Your task to perform on an android device: Go to Wikipedia Image 0: 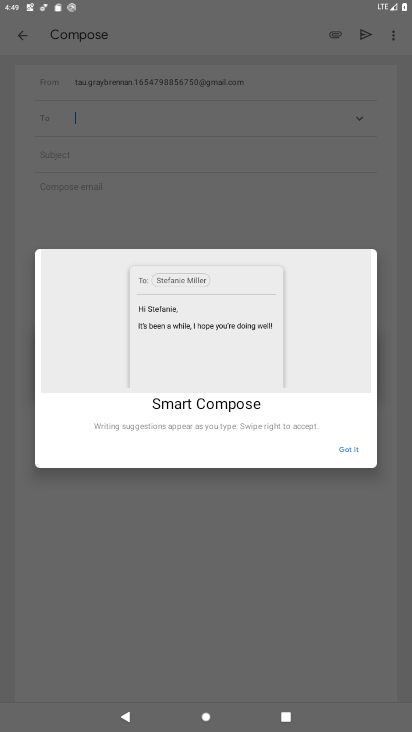
Step 0: press home button
Your task to perform on an android device: Go to Wikipedia Image 1: 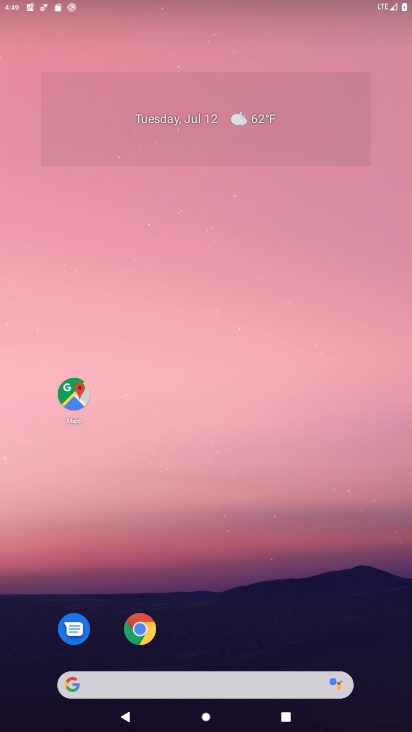
Step 1: drag from (353, 508) to (380, 98)
Your task to perform on an android device: Go to Wikipedia Image 2: 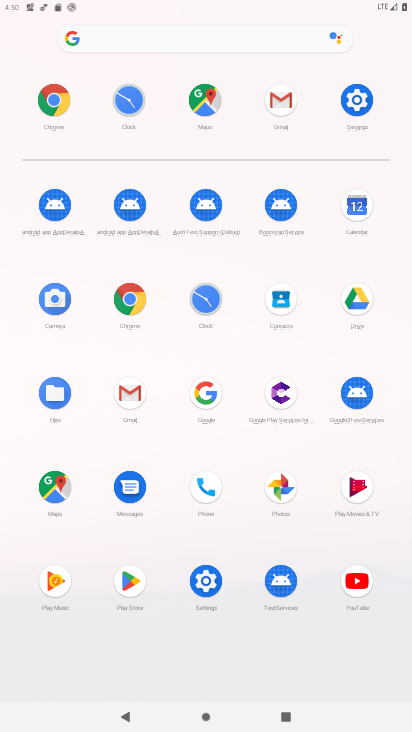
Step 2: click (57, 109)
Your task to perform on an android device: Go to Wikipedia Image 3: 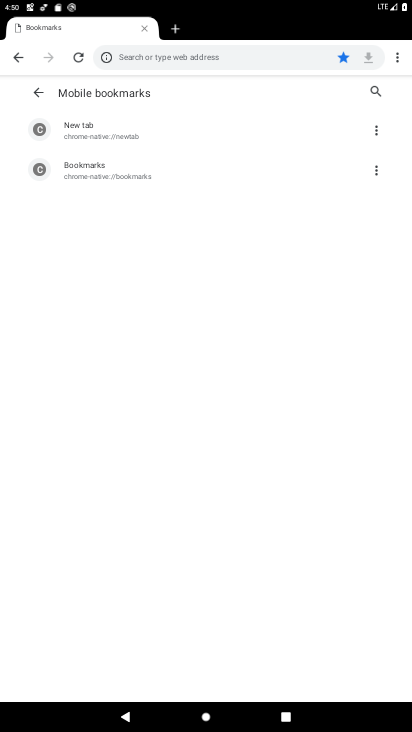
Step 3: click (12, 51)
Your task to perform on an android device: Go to Wikipedia Image 4: 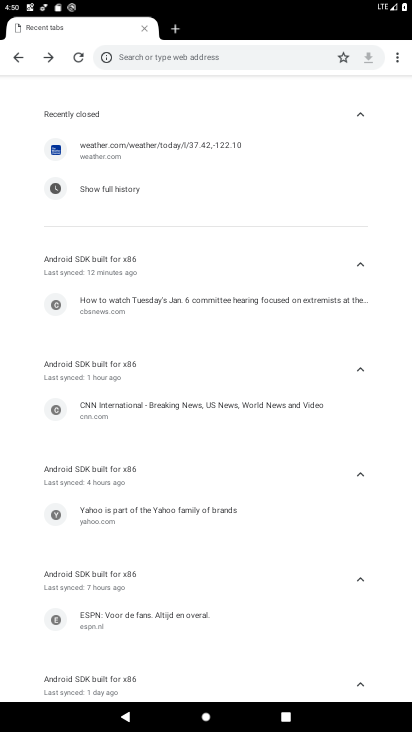
Step 4: click (12, 51)
Your task to perform on an android device: Go to Wikipedia Image 5: 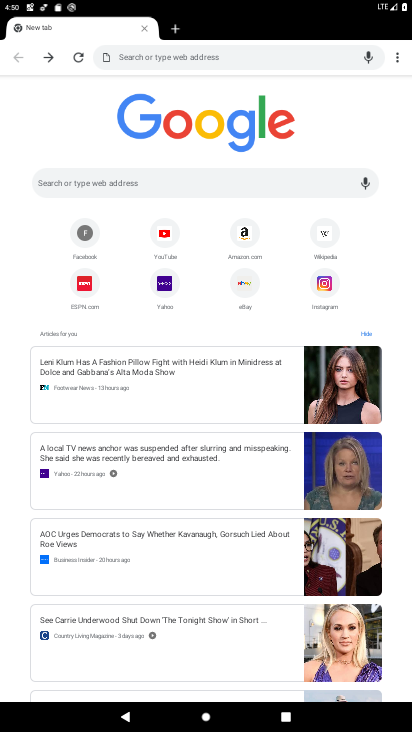
Step 5: click (320, 231)
Your task to perform on an android device: Go to Wikipedia Image 6: 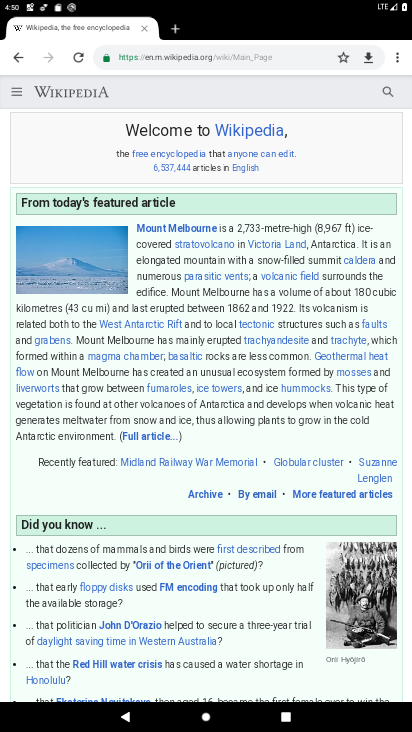
Step 6: task complete